Your task to perform on an android device: Search for Italian restaurants on Maps Image 0: 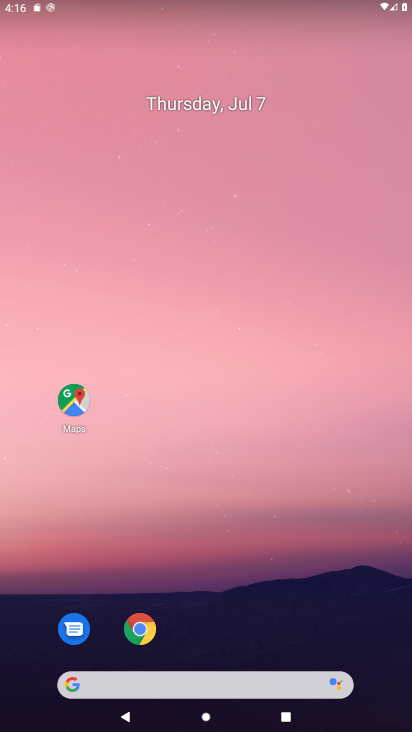
Step 0: drag from (208, 486) to (278, 73)
Your task to perform on an android device: Search for Italian restaurants on Maps Image 1: 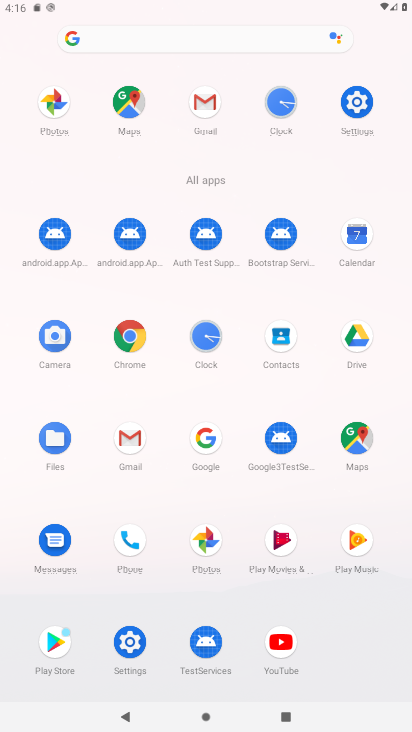
Step 1: click (348, 434)
Your task to perform on an android device: Search for Italian restaurants on Maps Image 2: 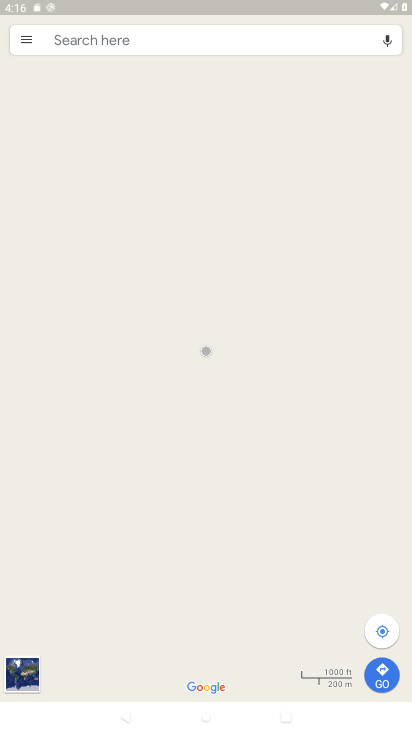
Step 2: click (139, 39)
Your task to perform on an android device: Search for Italian restaurants on Maps Image 3: 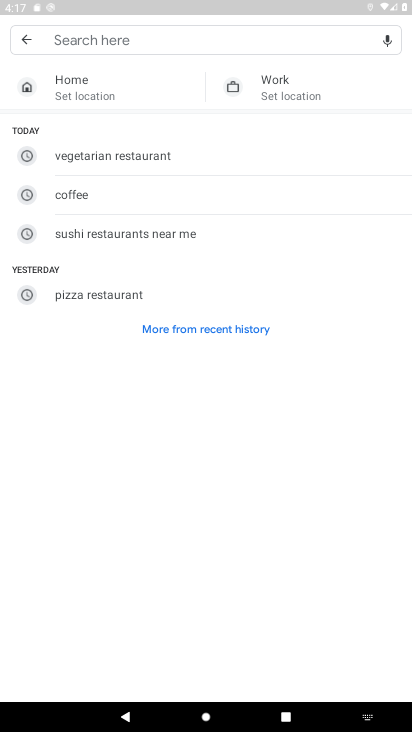
Step 3: type "Italian restaurants"
Your task to perform on an android device: Search for Italian restaurants on Maps Image 4: 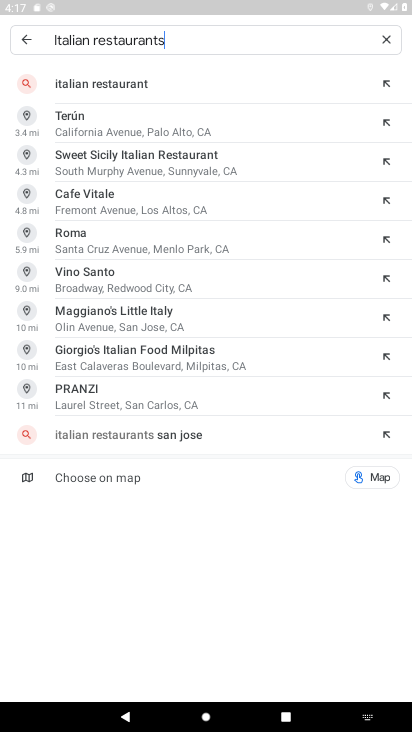
Step 4: click (182, 87)
Your task to perform on an android device: Search for Italian restaurants on Maps Image 5: 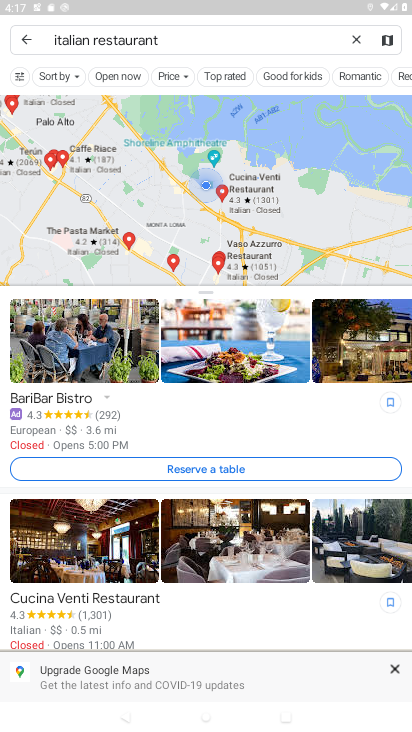
Step 5: task complete